Your task to perform on an android device: Open Youtube and go to "Your channel" Image 0: 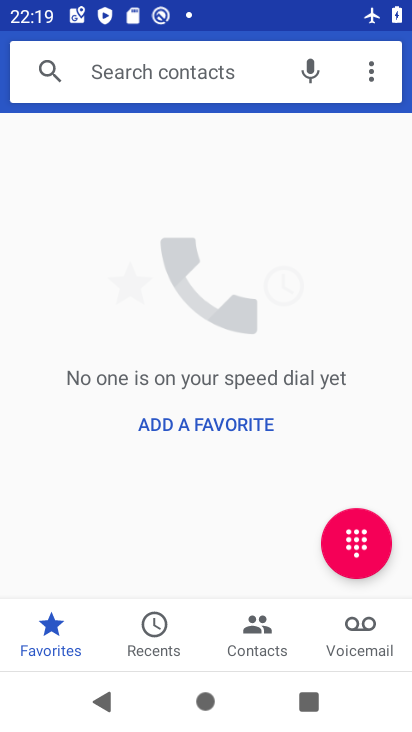
Step 0: press home button
Your task to perform on an android device: Open Youtube and go to "Your channel" Image 1: 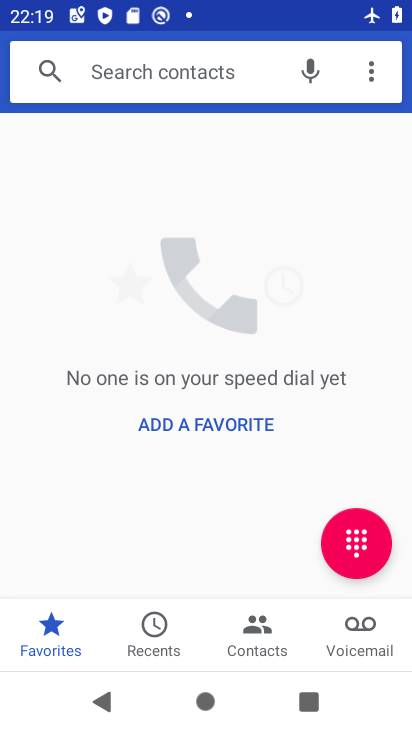
Step 1: press home button
Your task to perform on an android device: Open Youtube and go to "Your channel" Image 2: 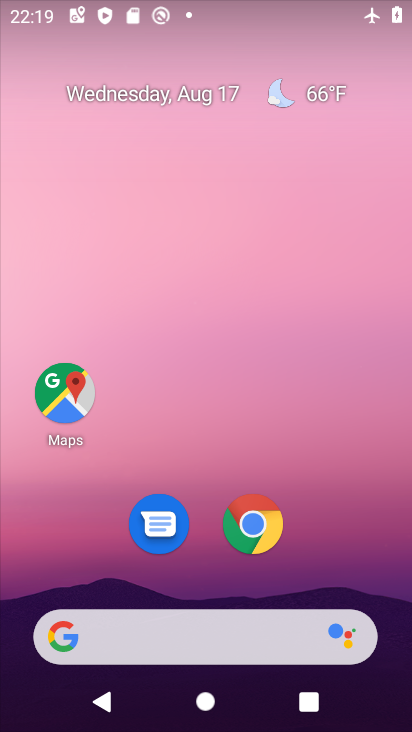
Step 2: drag from (344, 475) to (330, 0)
Your task to perform on an android device: Open Youtube and go to "Your channel" Image 3: 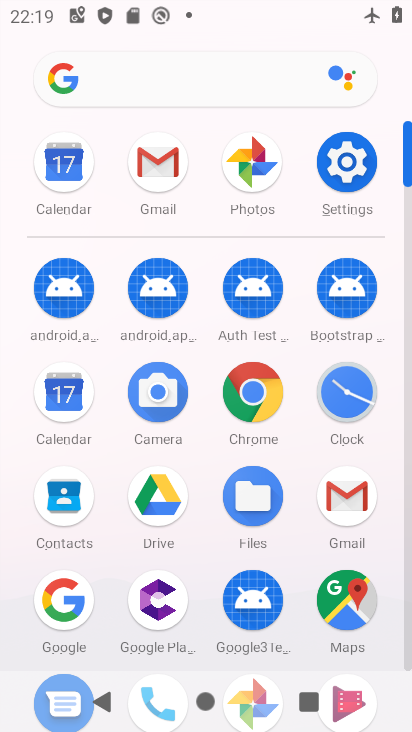
Step 3: drag from (294, 505) to (286, 60)
Your task to perform on an android device: Open Youtube and go to "Your channel" Image 4: 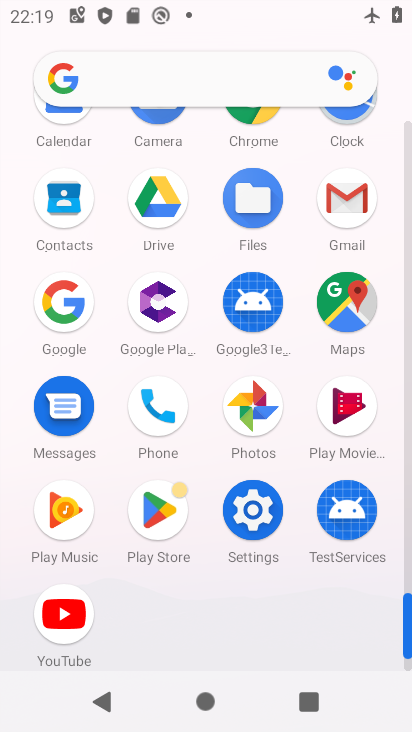
Step 4: click (66, 619)
Your task to perform on an android device: Open Youtube and go to "Your channel" Image 5: 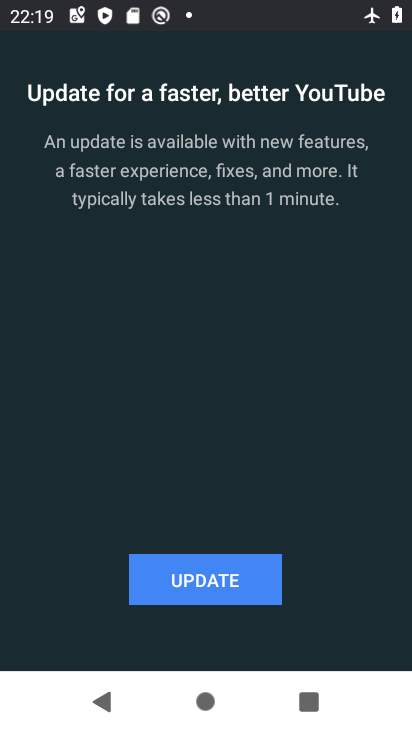
Step 5: click (241, 586)
Your task to perform on an android device: Open Youtube and go to "Your channel" Image 6: 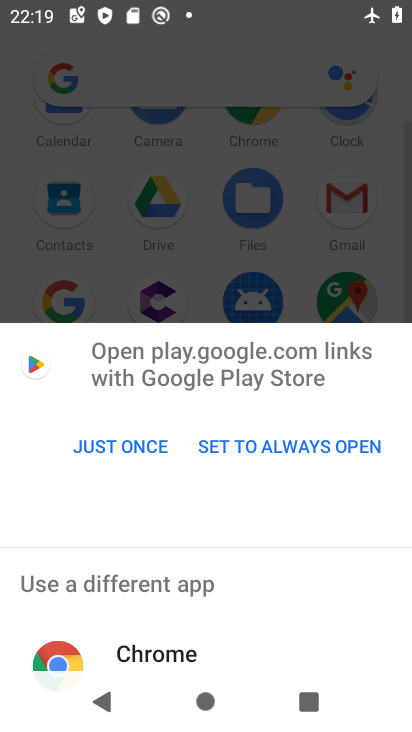
Step 6: click (136, 444)
Your task to perform on an android device: Open Youtube and go to "Your channel" Image 7: 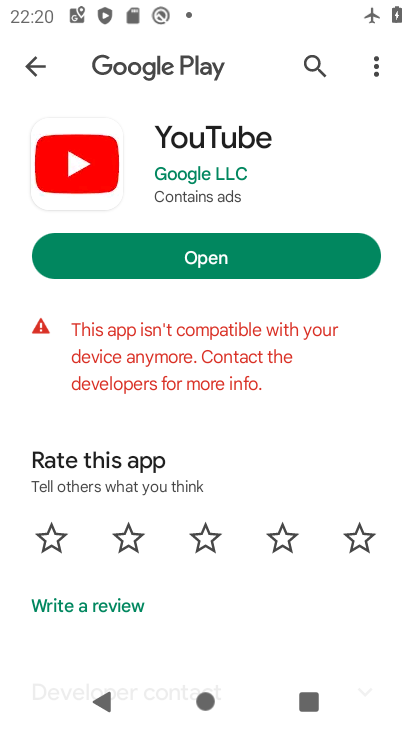
Step 7: click (372, 257)
Your task to perform on an android device: Open Youtube and go to "Your channel" Image 8: 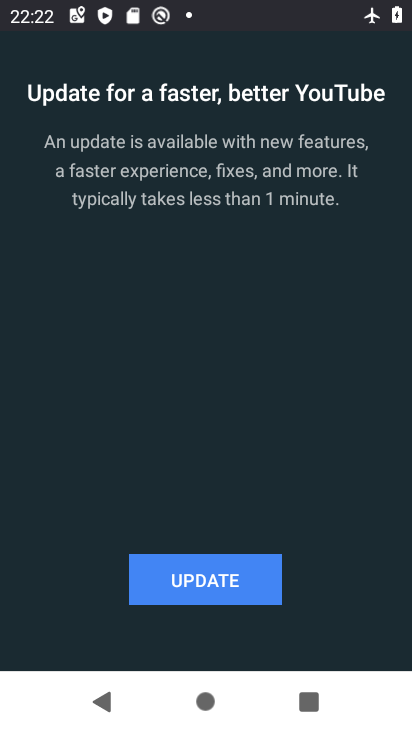
Step 8: task complete